Your task to perform on an android device: Open the Play Movies app and select the watchlist tab. Image 0: 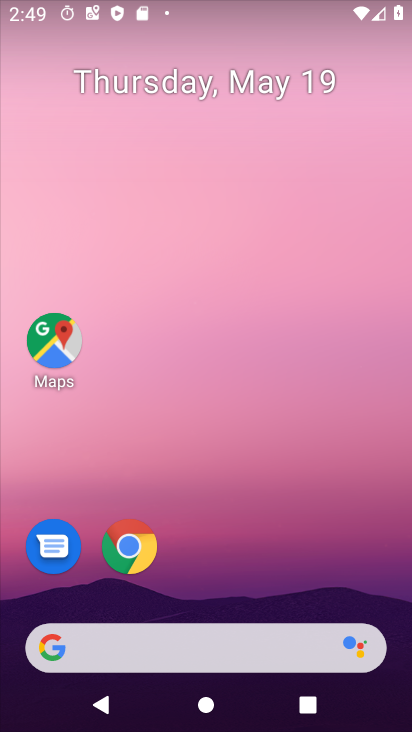
Step 0: drag from (163, 606) to (332, 82)
Your task to perform on an android device: Open the Play Movies app and select the watchlist tab. Image 1: 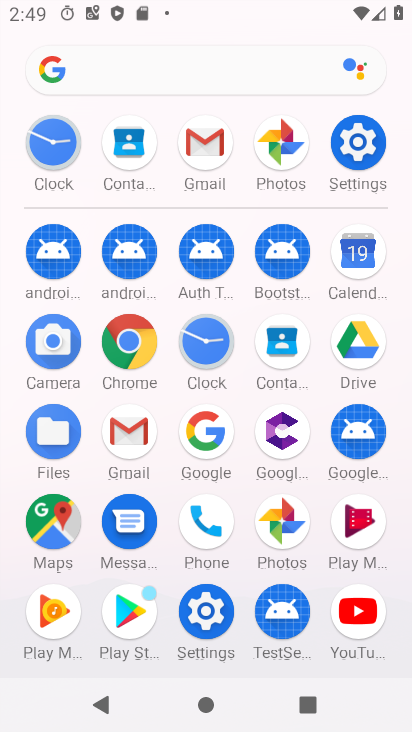
Step 1: click (365, 511)
Your task to perform on an android device: Open the Play Movies app and select the watchlist tab. Image 2: 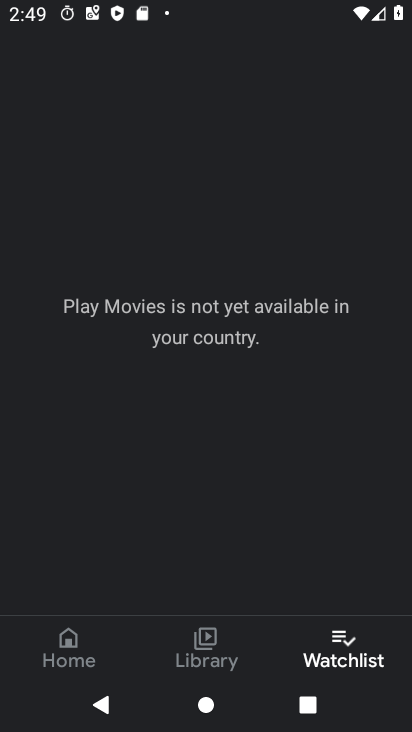
Step 2: task complete